Your task to perform on an android device: What's the weather going to be tomorrow? Image 0: 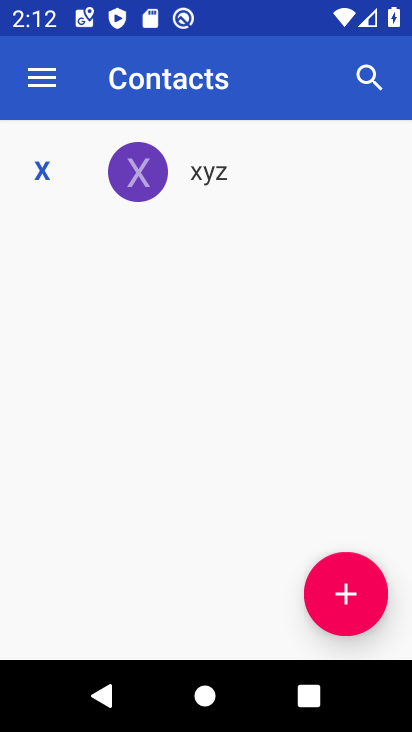
Step 0: press home button
Your task to perform on an android device: What's the weather going to be tomorrow? Image 1: 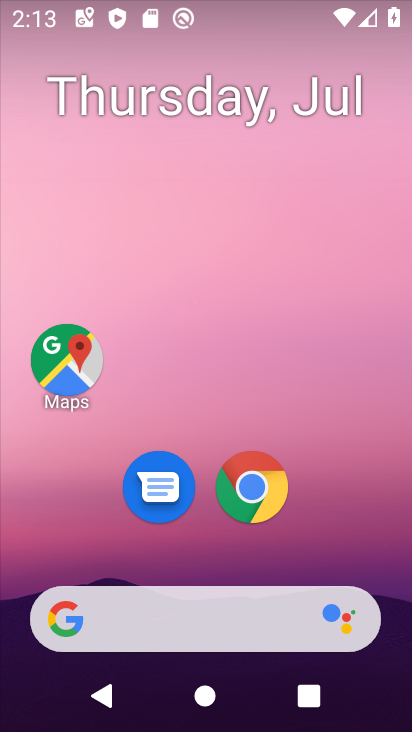
Step 1: click (335, 606)
Your task to perform on an android device: What's the weather going to be tomorrow? Image 2: 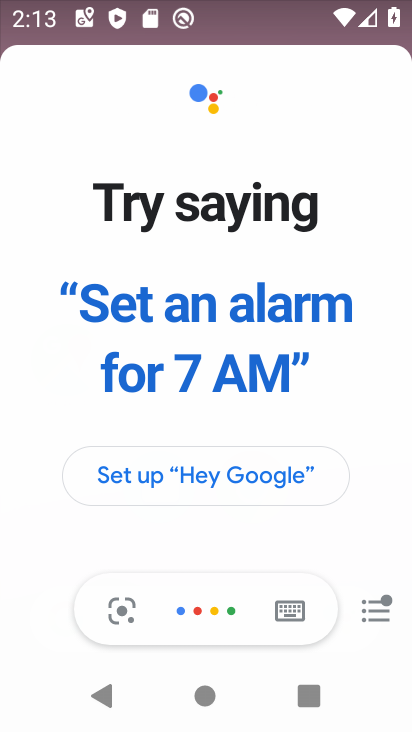
Step 2: click (244, 623)
Your task to perform on an android device: What's the weather going to be tomorrow? Image 3: 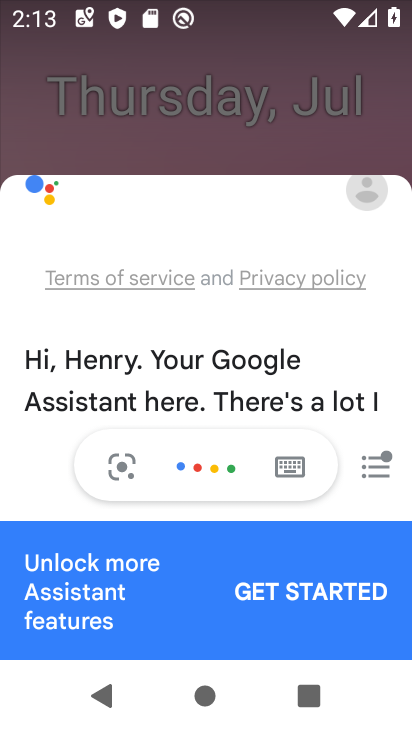
Step 3: press home button
Your task to perform on an android device: What's the weather going to be tomorrow? Image 4: 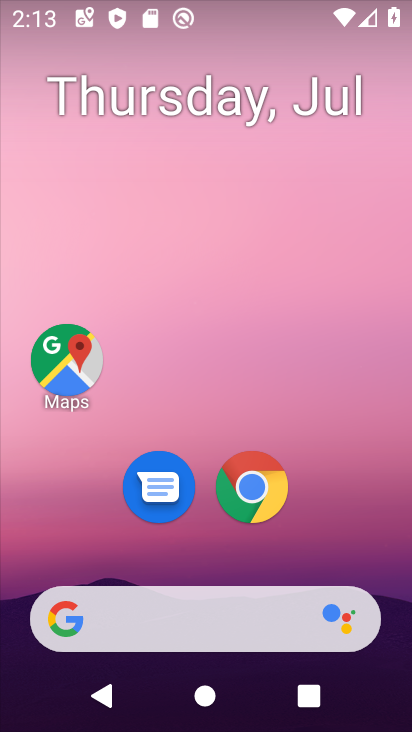
Step 4: drag from (365, 542) to (393, 151)
Your task to perform on an android device: What's the weather going to be tomorrow? Image 5: 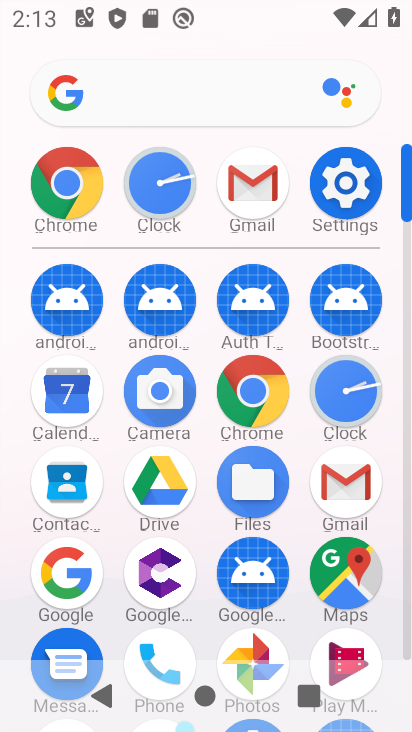
Step 5: click (233, 108)
Your task to perform on an android device: What's the weather going to be tomorrow? Image 6: 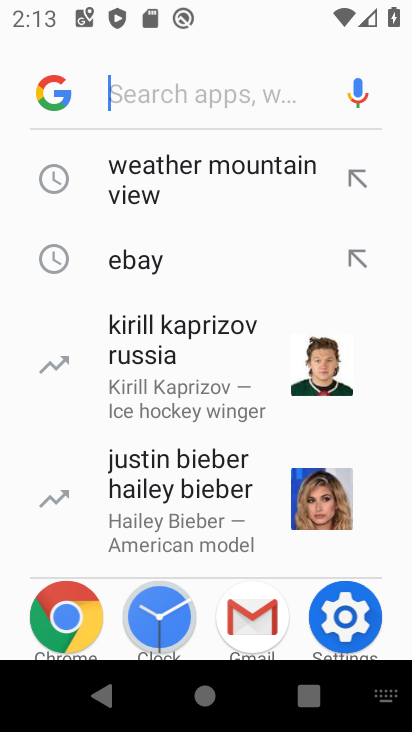
Step 6: click (205, 174)
Your task to perform on an android device: What's the weather going to be tomorrow? Image 7: 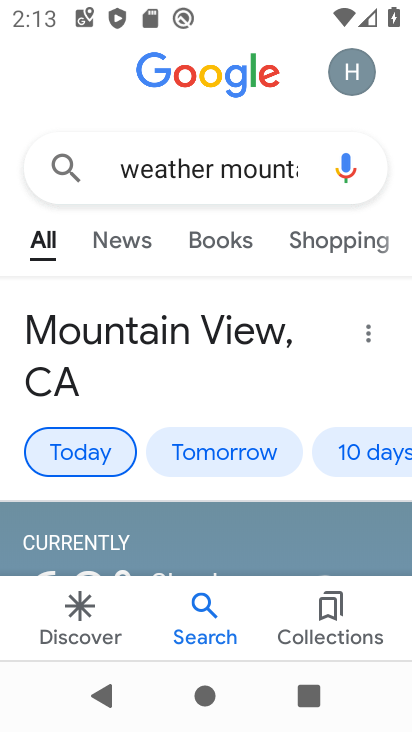
Step 7: click (228, 454)
Your task to perform on an android device: What's the weather going to be tomorrow? Image 8: 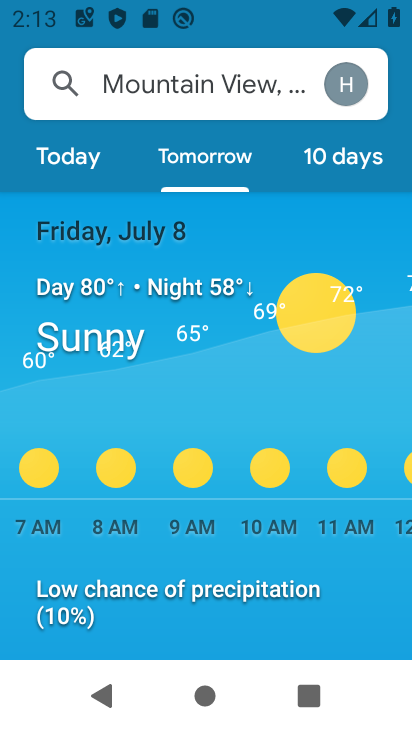
Step 8: task complete